Your task to perform on an android device: open app "Yahoo Mail" (install if not already installed) Image 0: 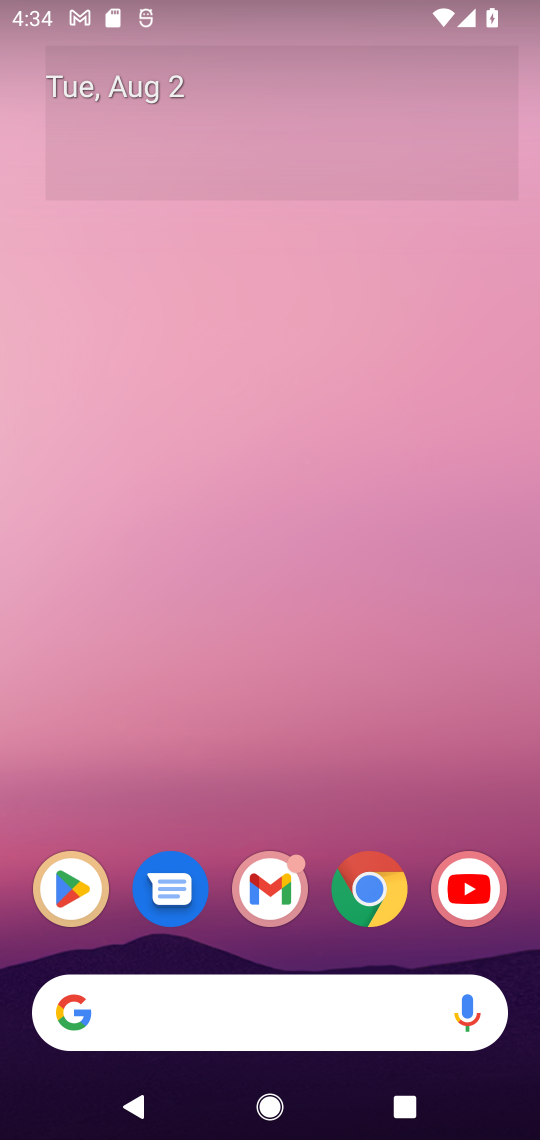
Step 0: press home button
Your task to perform on an android device: open app "Yahoo Mail" (install if not already installed) Image 1: 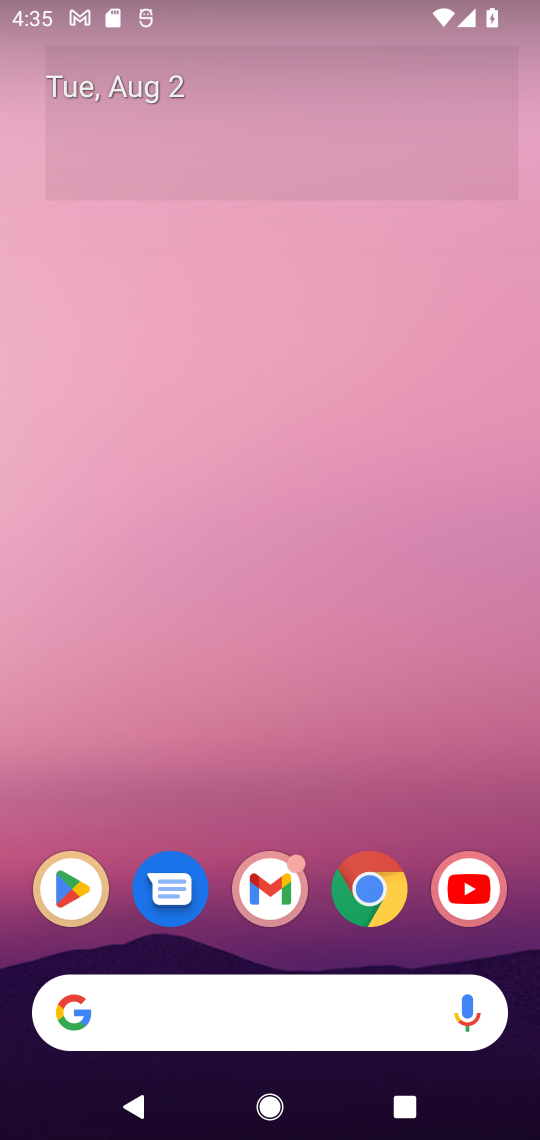
Step 1: drag from (388, 788) to (410, 88)
Your task to perform on an android device: open app "Yahoo Mail" (install if not already installed) Image 2: 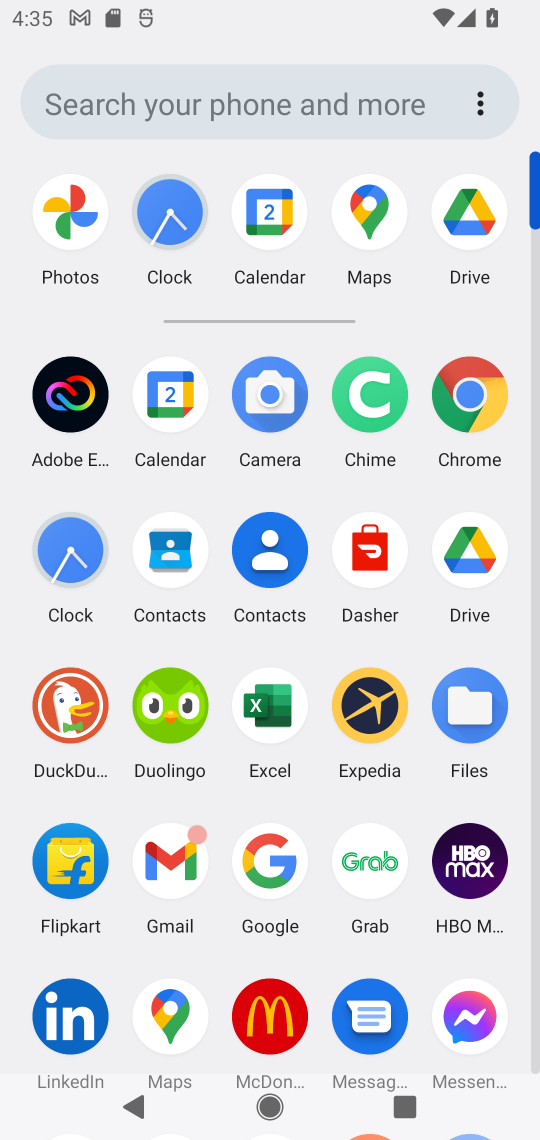
Step 2: drag from (509, 800) to (535, 396)
Your task to perform on an android device: open app "Yahoo Mail" (install if not already installed) Image 3: 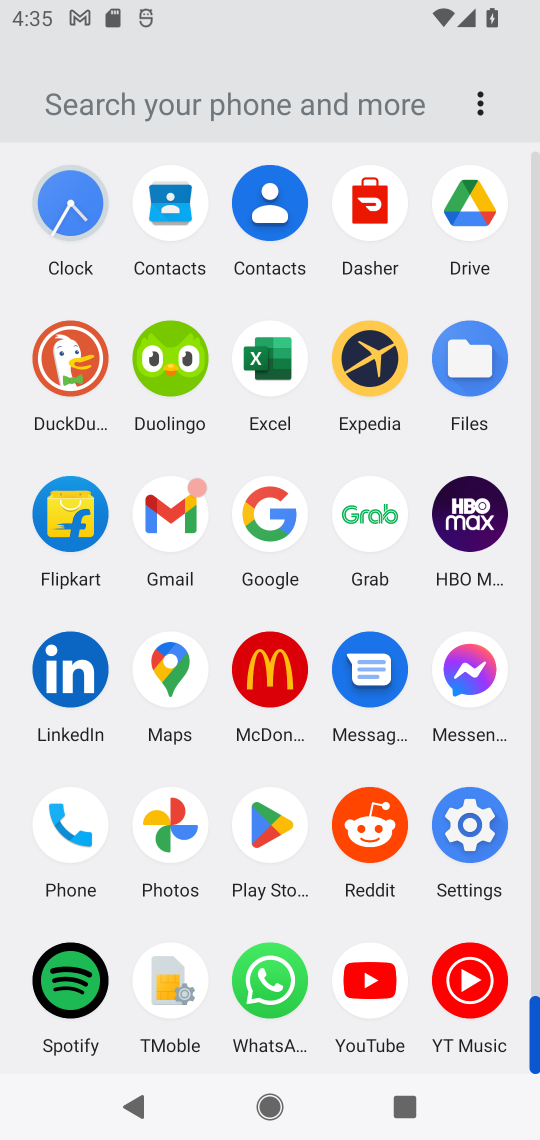
Step 3: click (264, 849)
Your task to perform on an android device: open app "Yahoo Mail" (install if not already installed) Image 4: 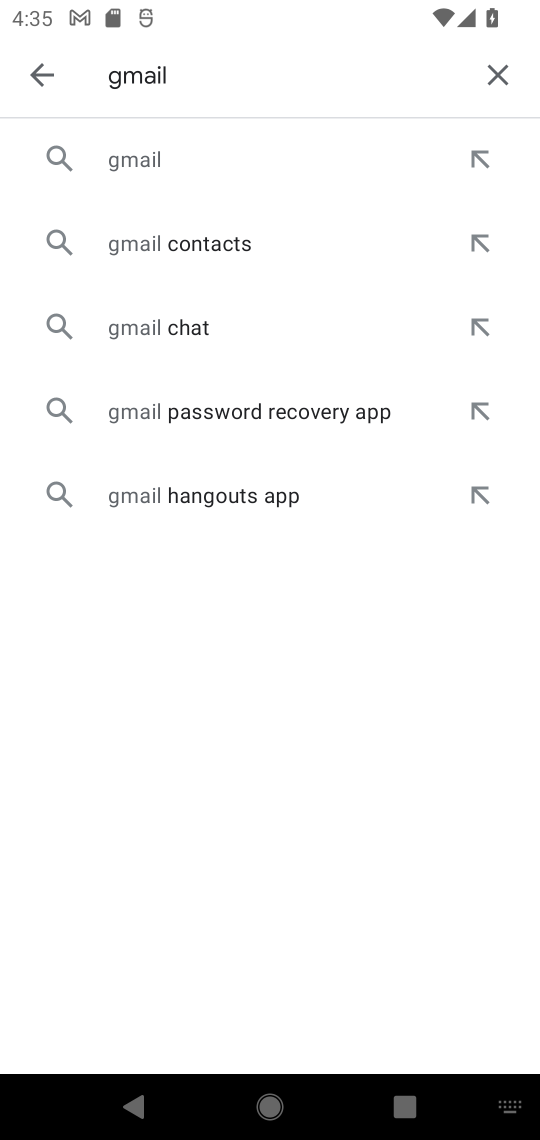
Step 4: click (498, 75)
Your task to perform on an android device: open app "Yahoo Mail" (install if not already installed) Image 5: 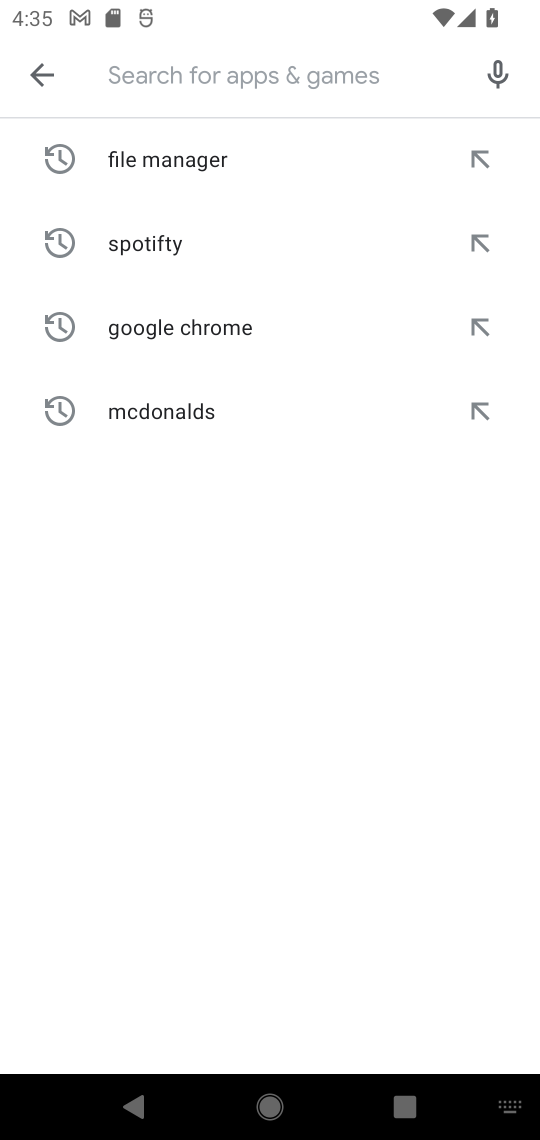
Step 5: click (309, 88)
Your task to perform on an android device: open app "Yahoo Mail" (install if not already installed) Image 6: 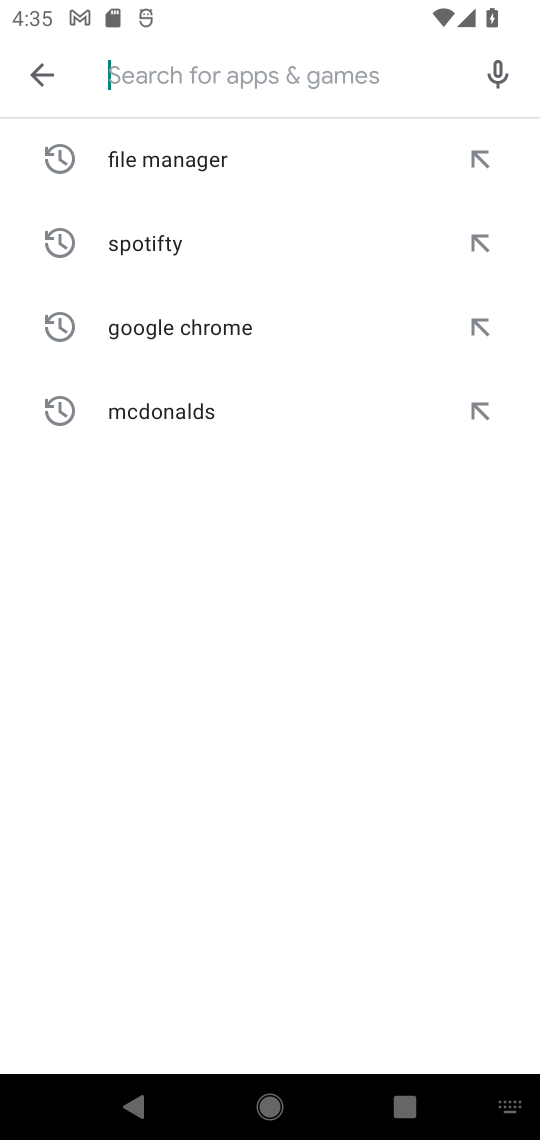
Step 6: type "yahoo mail"
Your task to perform on an android device: open app "Yahoo Mail" (install if not already installed) Image 7: 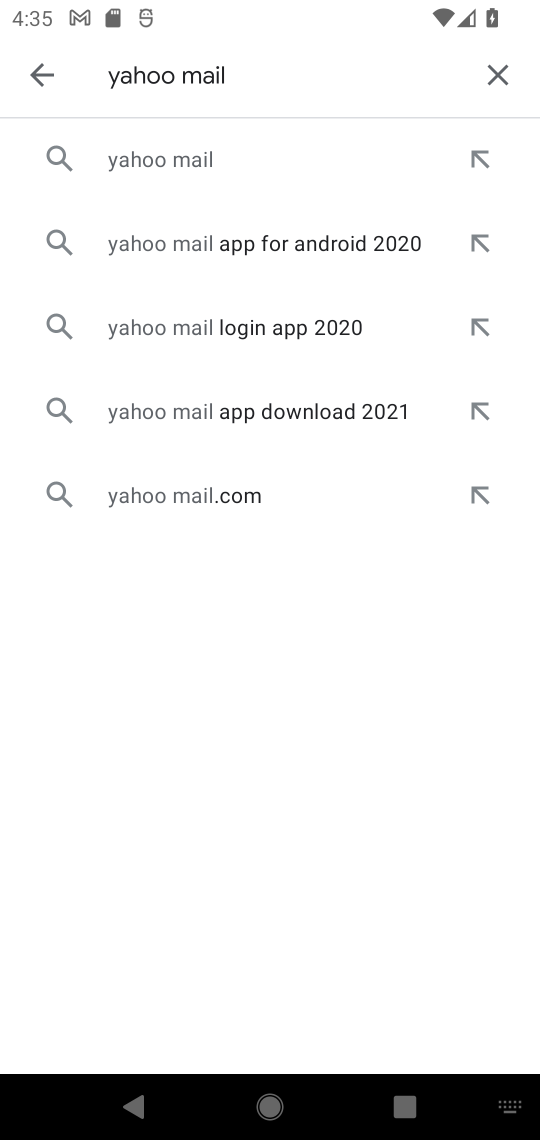
Step 7: click (197, 170)
Your task to perform on an android device: open app "Yahoo Mail" (install if not already installed) Image 8: 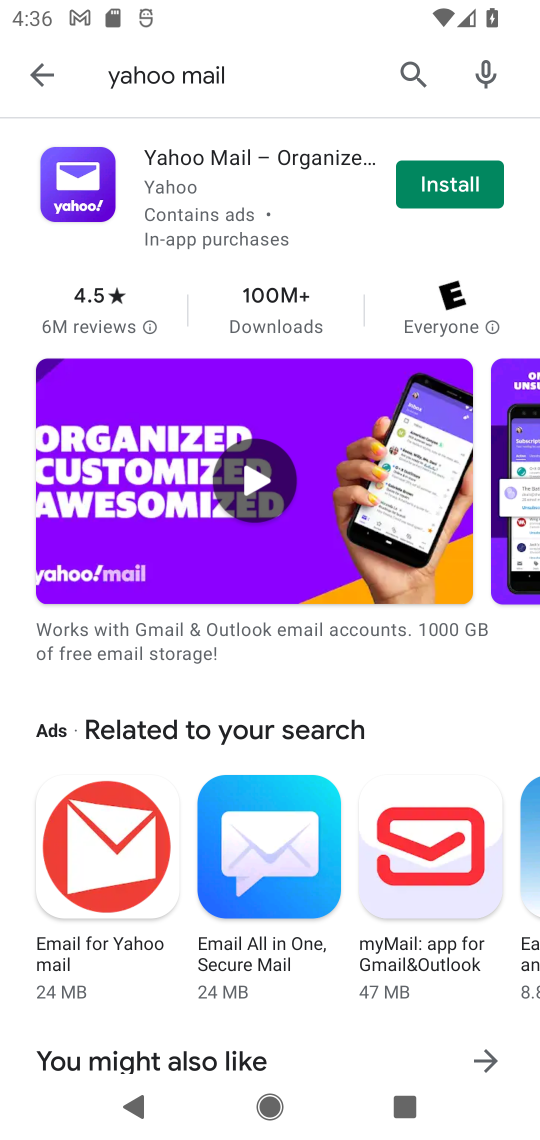
Step 8: click (467, 189)
Your task to perform on an android device: open app "Yahoo Mail" (install if not already installed) Image 9: 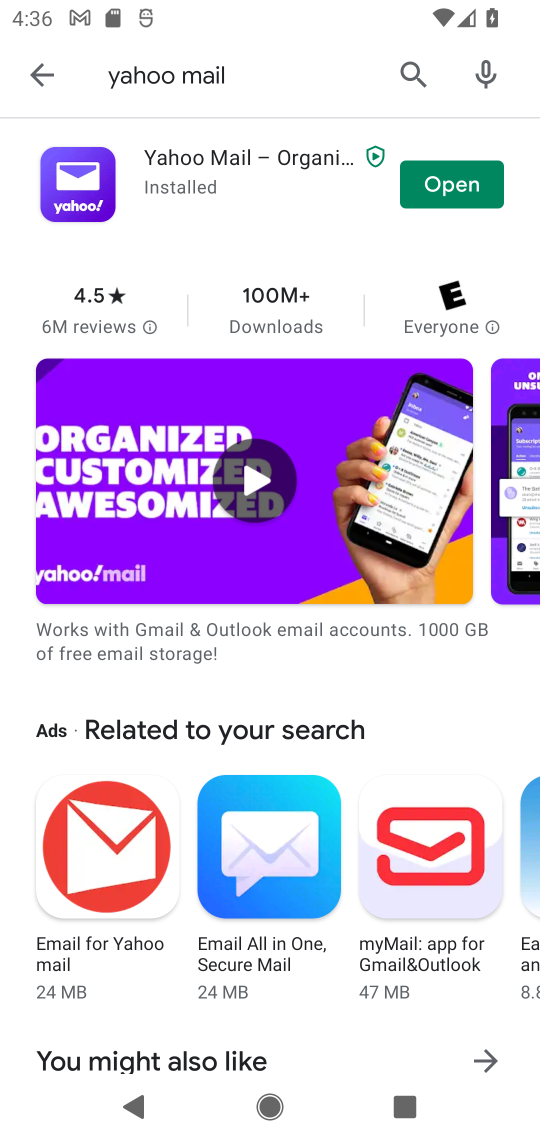
Step 9: click (425, 188)
Your task to perform on an android device: open app "Yahoo Mail" (install if not already installed) Image 10: 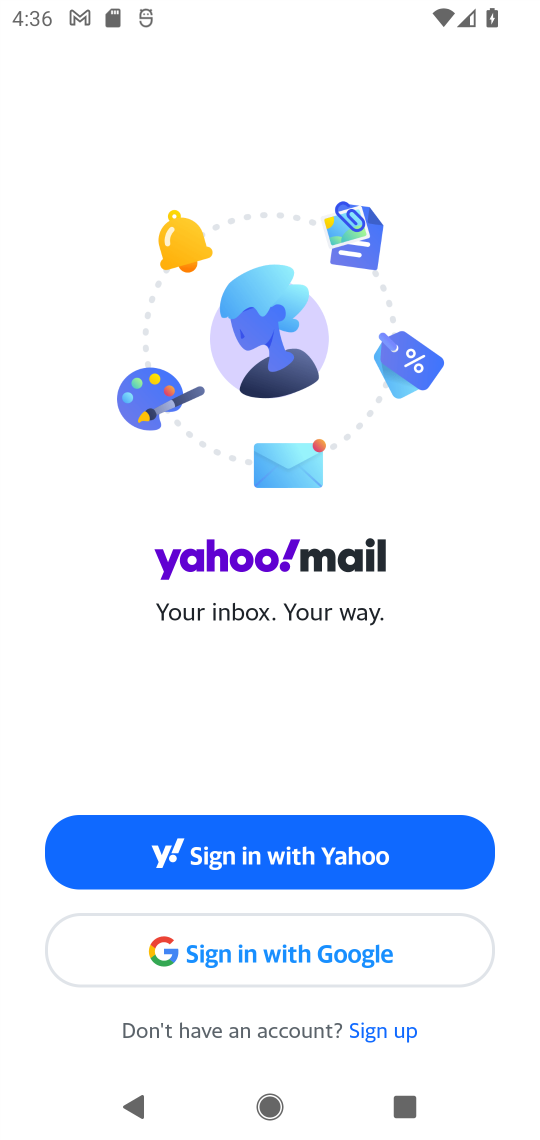
Step 10: task complete